Your task to perform on an android device: add a label to a message in the gmail app Image 0: 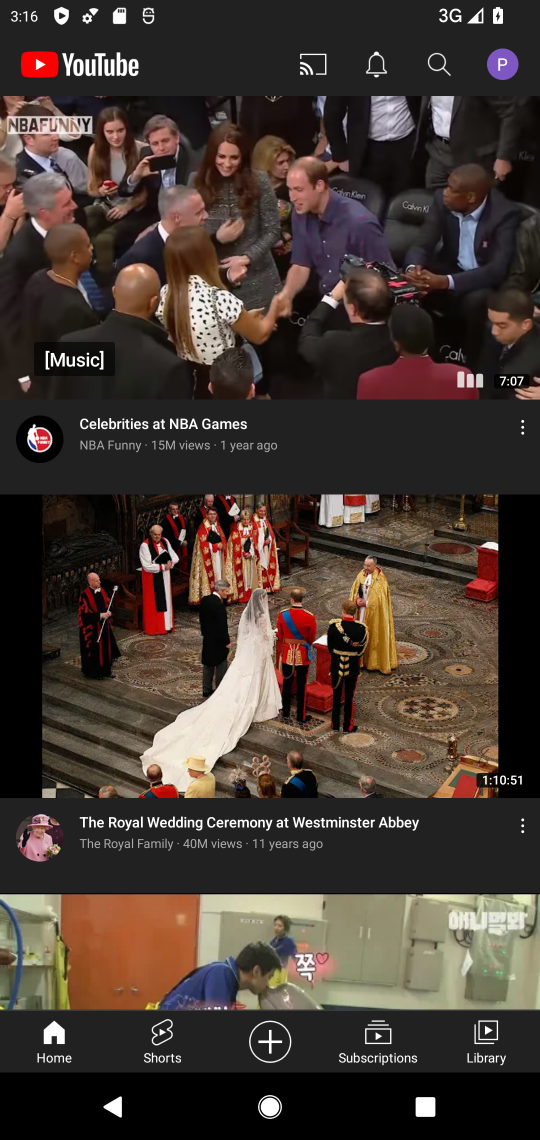
Step 0: task complete